Your task to perform on an android device: turn on improve location accuracy Image 0: 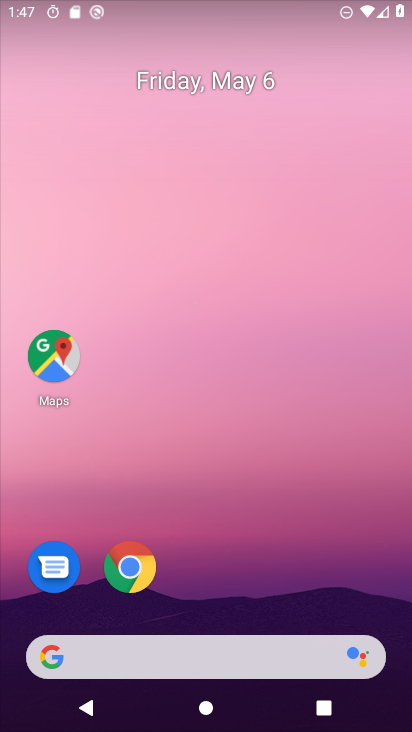
Step 0: drag from (330, 608) to (299, 7)
Your task to perform on an android device: turn on improve location accuracy Image 1: 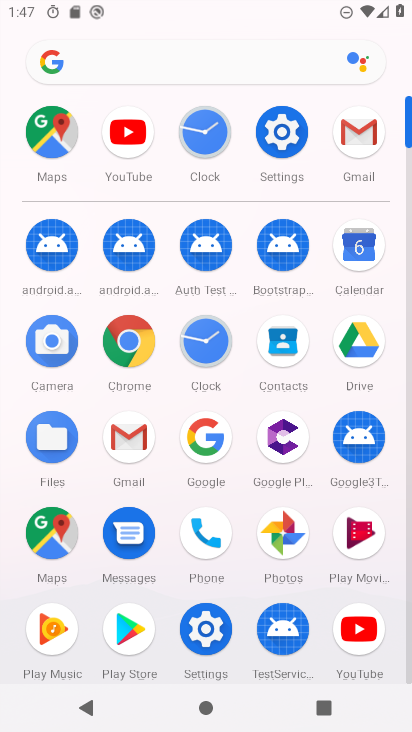
Step 1: click (279, 138)
Your task to perform on an android device: turn on improve location accuracy Image 2: 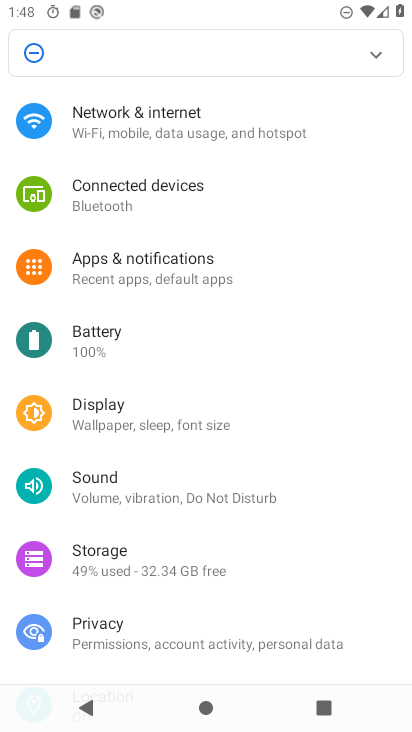
Step 2: drag from (345, 577) to (336, 309)
Your task to perform on an android device: turn on improve location accuracy Image 3: 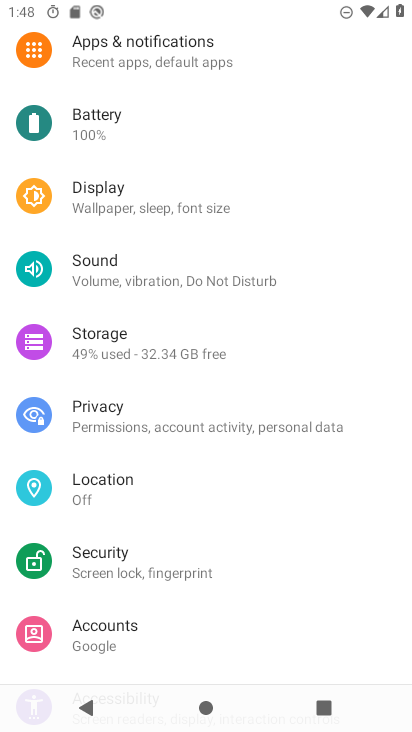
Step 3: click (69, 489)
Your task to perform on an android device: turn on improve location accuracy Image 4: 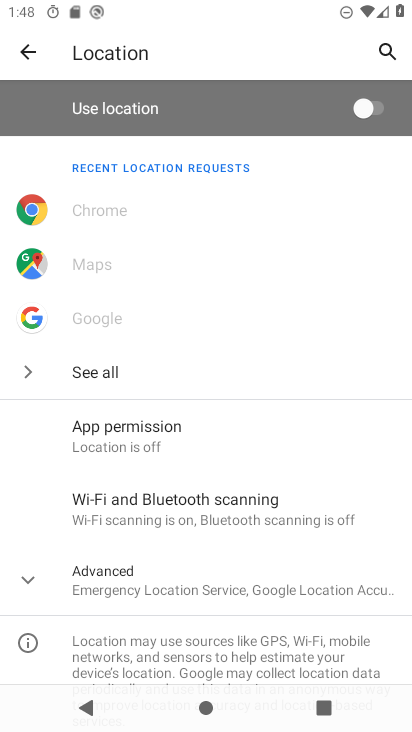
Step 4: drag from (324, 540) to (302, 299)
Your task to perform on an android device: turn on improve location accuracy Image 5: 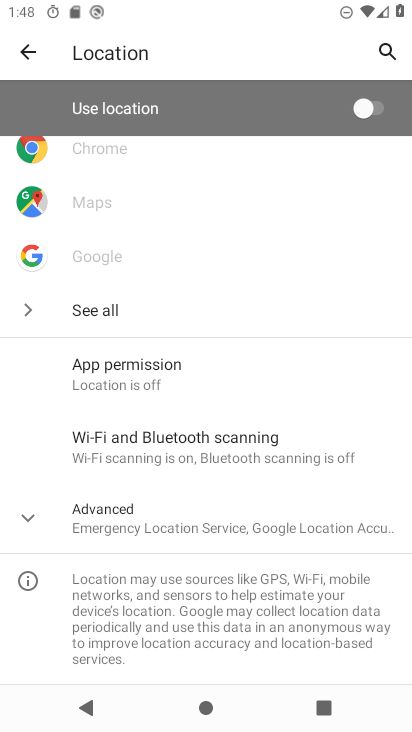
Step 5: click (30, 522)
Your task to perform on an android device: turn on improve location accuracy Image 6: 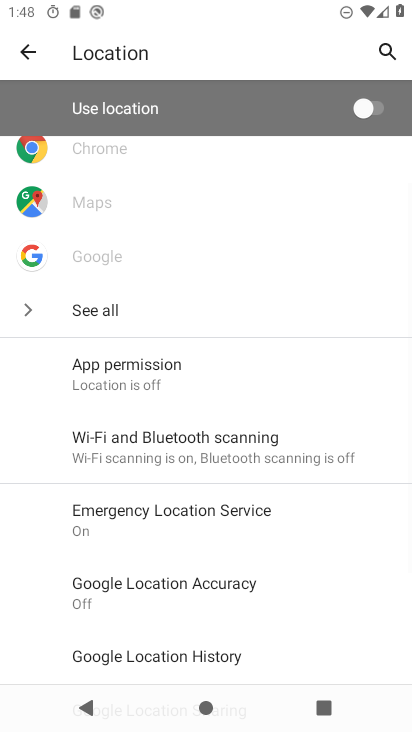
Step 6: click (179, 585)
Your task to perform on an android device: turn on improve location accuracy Image 7: 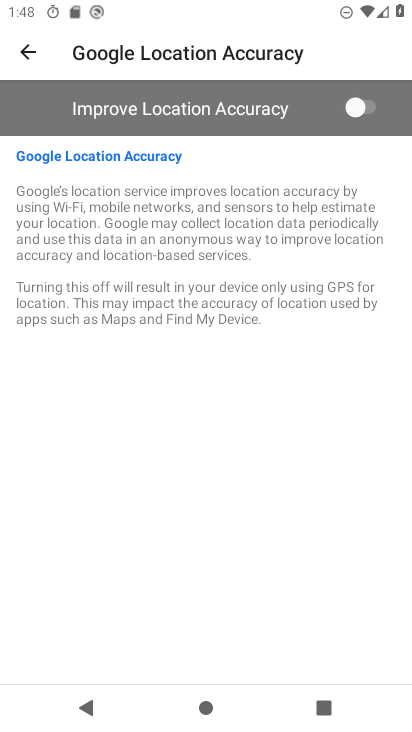
Step 7: click (349, 100)
Your task to perform on an android device: turn on improve location accuracy Image 8: 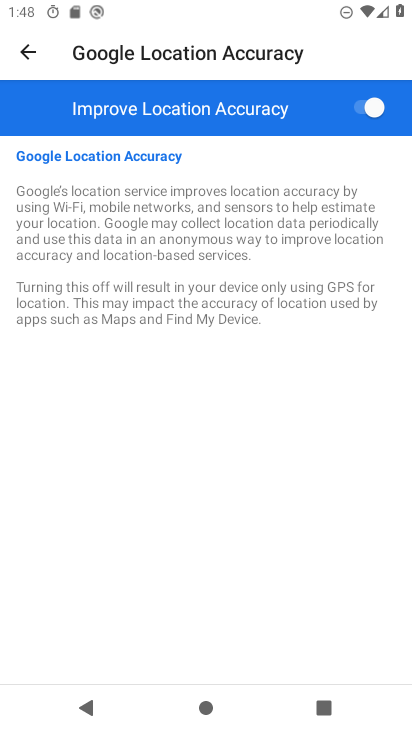
Step 8: task complete